Your task to perform on an android device: What's on my calendar tomorrow? Image 0: 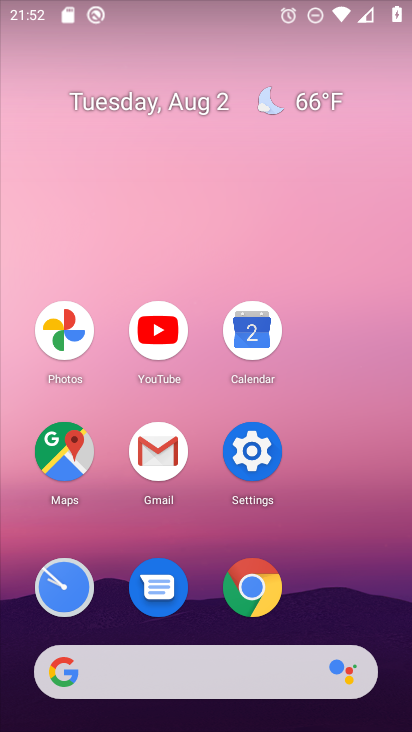
Step 0: click (247, 333)
Your task to perform on an android device: What's on my calendar tomorrow? Image 1: 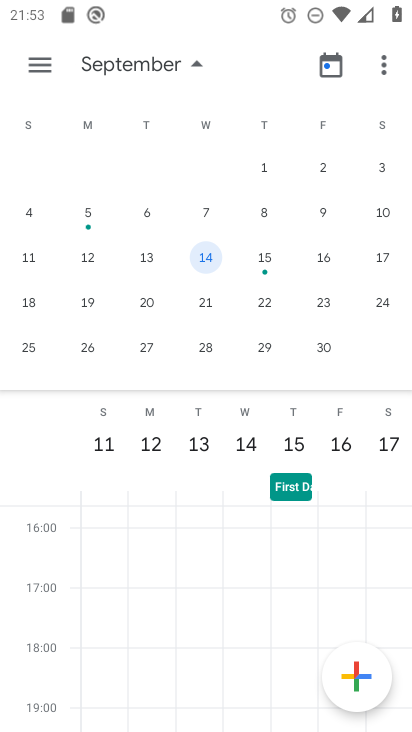
Step 1: drag from (51, 215) to (355, 208)
Your task to perform on an android device: What's on my calendar tomorrow? Image 2: 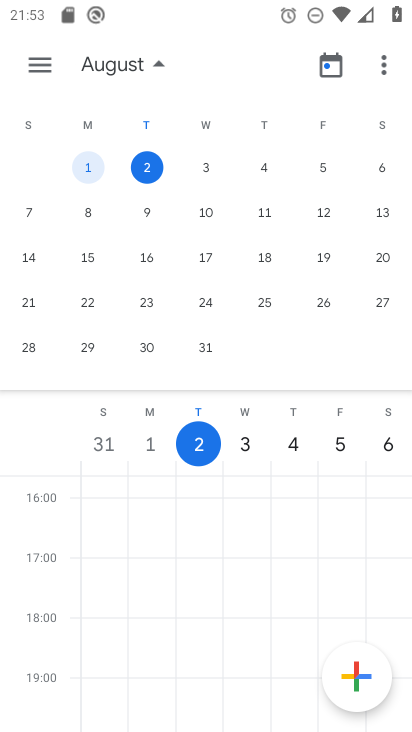
Step 2: click (202, 159)
Your task to perform on an android device: What's on my calendar tomorrow? Image 3: 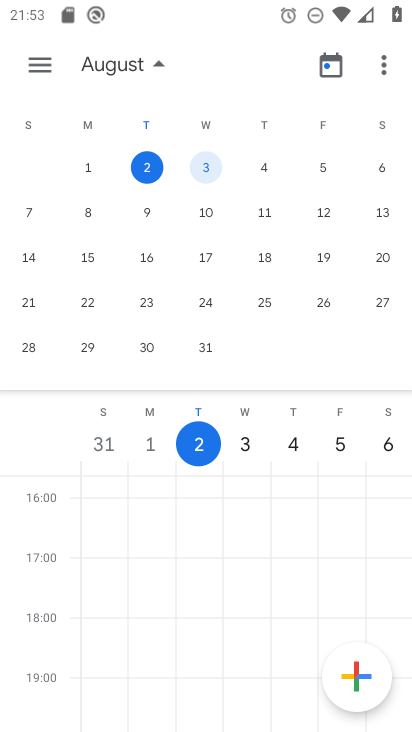
Step 3: click (202, 159)
Your task to perform on an android device: What's on my calendar tomorrow? Image 4: 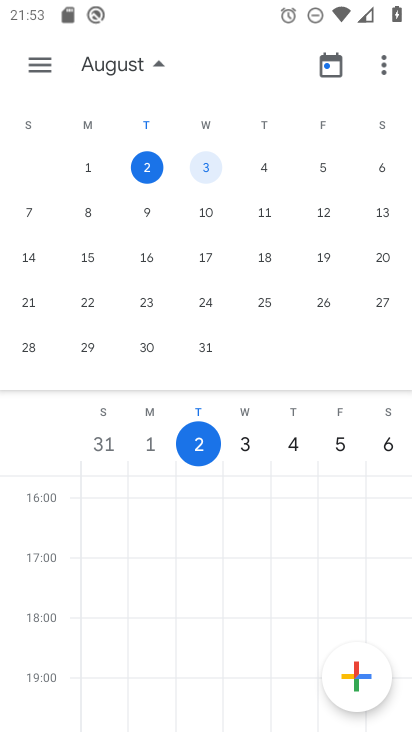
Step 4: click (240, 445)
Your task to perform on an android device: What's on my calendar tomorrow? Image 5: 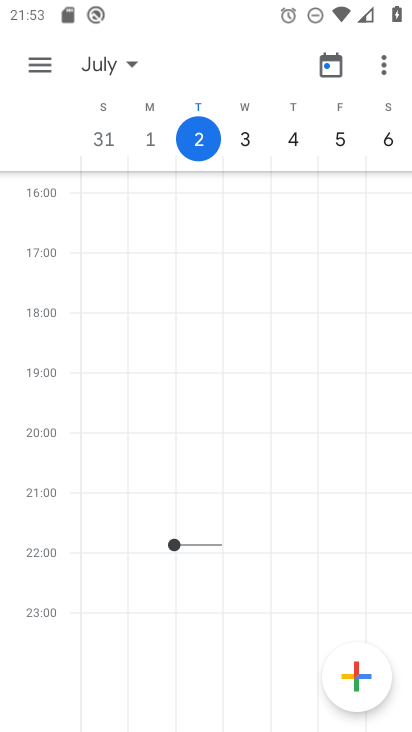
Step 5: click (247, 392)
Your task to perform on an android device: What's on my calendar tomorrow? Image 6: 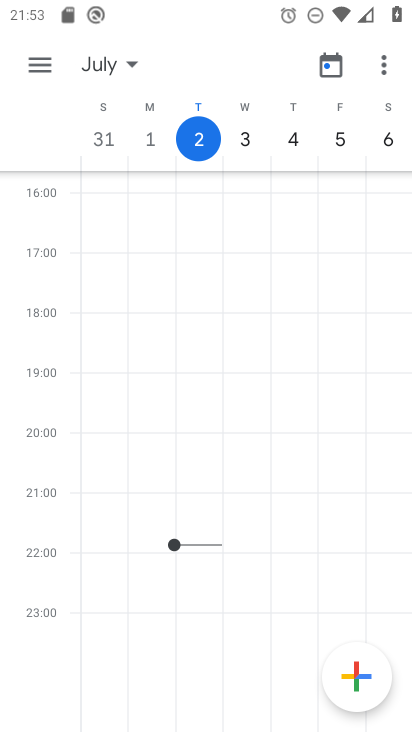
Step 6: click (243, 135)
Your task to perform on an android device: What's on my calendar tomorrow? Image 7: 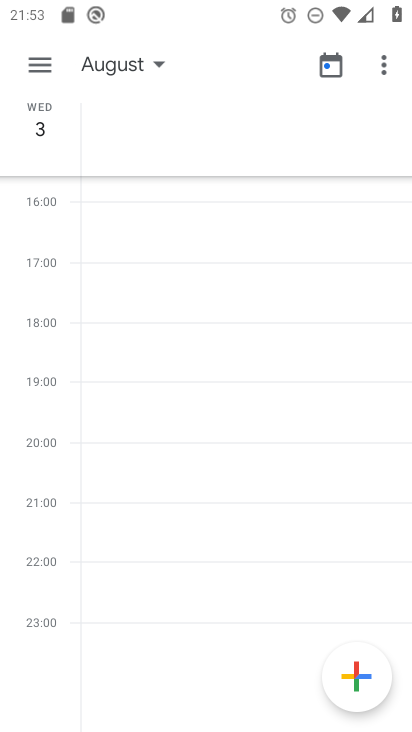
Step 7: task complete